Your task to perform on an android device: Go to eBay Image 0: 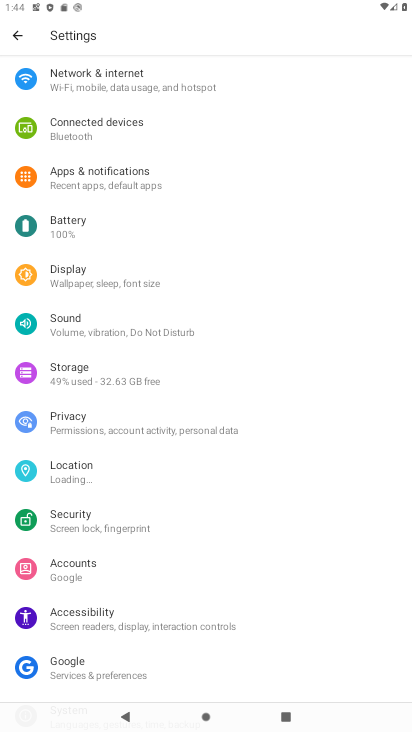
Step 0: press home button
Your task to perform on an android device: Go to eBay Image 1: 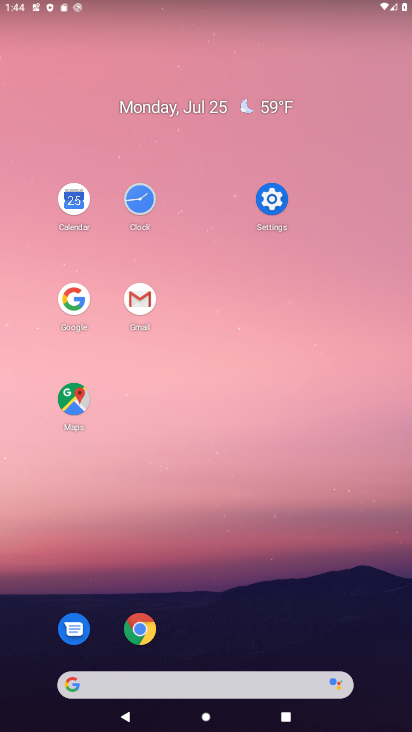
Step 1: click (111, 625)
Your task to perform on an android device: Go to eBay Image 2: 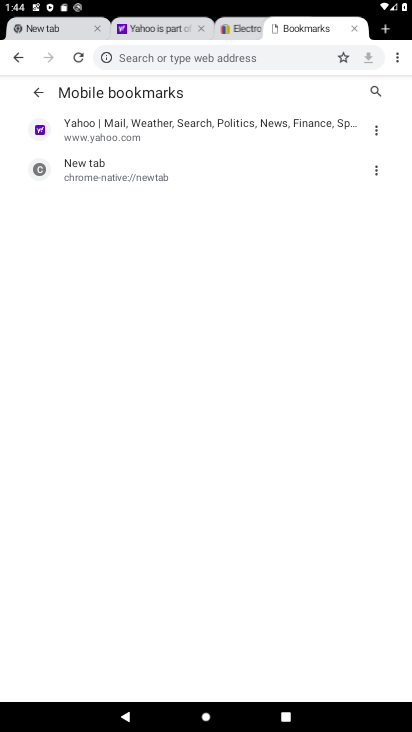
Step 2: click (385, 26)
Your task to perform on an android device: Go to eBay Image 3: 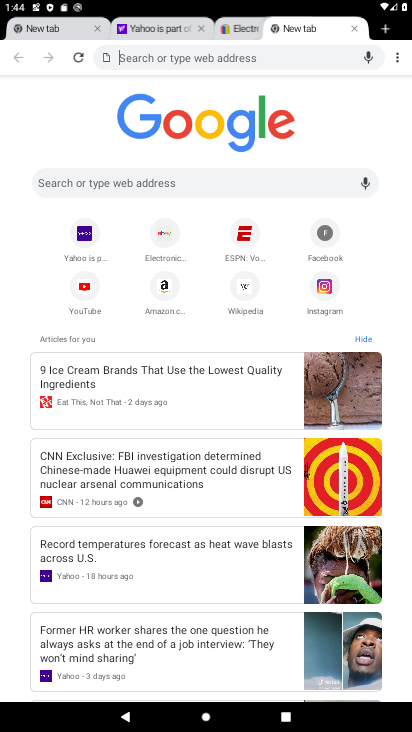
Step 3: click (165, 227)
Your task to perform on an android device: Go to eBay Image 4: 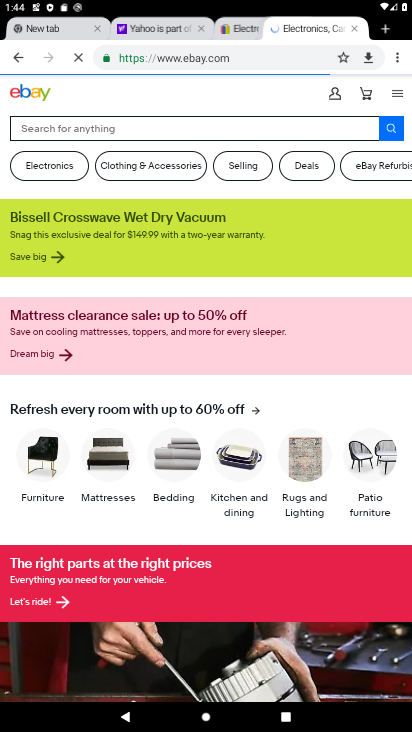
Step 4: task complete